Your task to perform on an android device: turn on bluetooth scan Image 0: 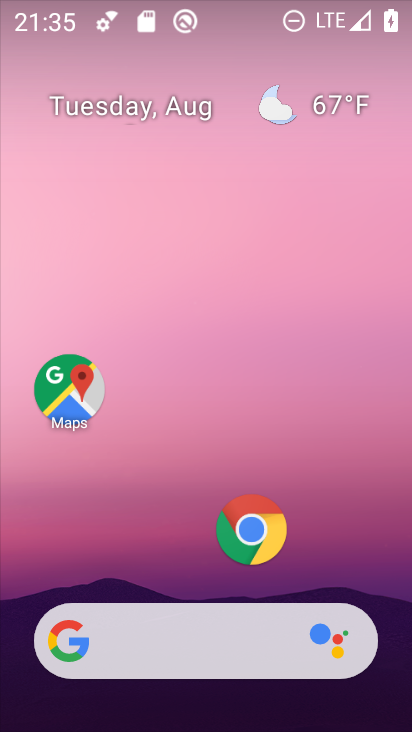
Step 0: drag from (148, 472) to (135, 186)
Your task to perform on an android device: turn on bluetooth scan Image 1: 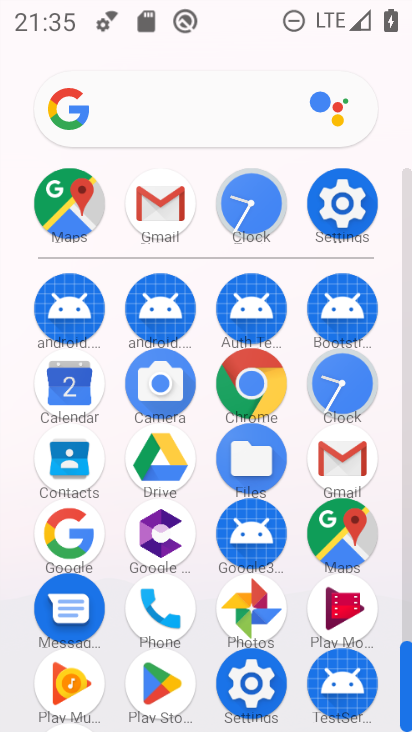
Step 1: click (341, 208)
Your task to perform on an android device: turn on bluetooth scan Image 2: 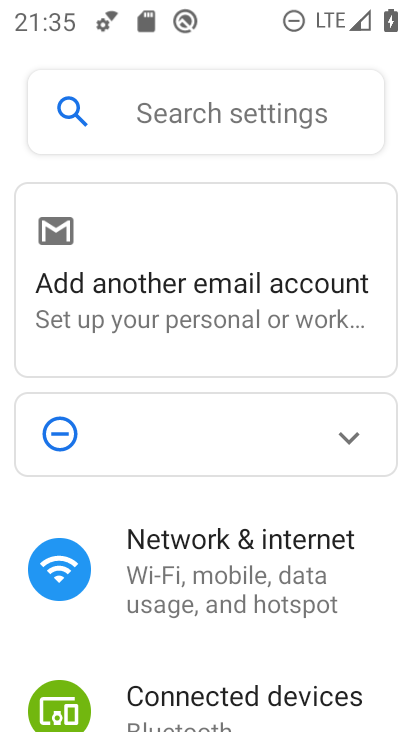
Step 2: drag from (203, 630) to (251, 95)
Your task to perform on an android device: turn on bluetooth scan Image 3: 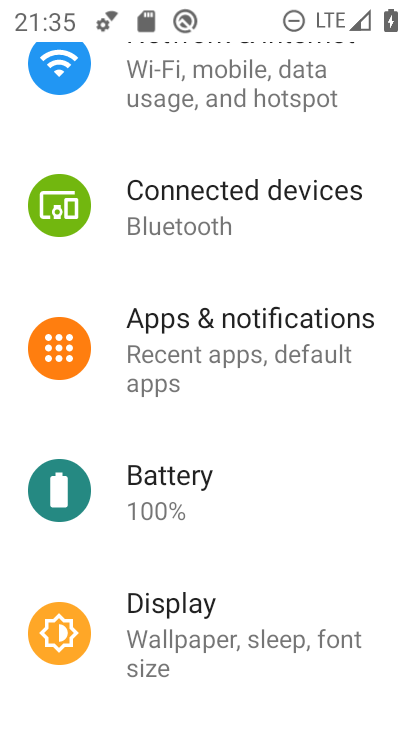
Step 3: drag from (217, 589) to (235, 318)
Your task to perform on an android device: turn on bluetooth scan Image 4: 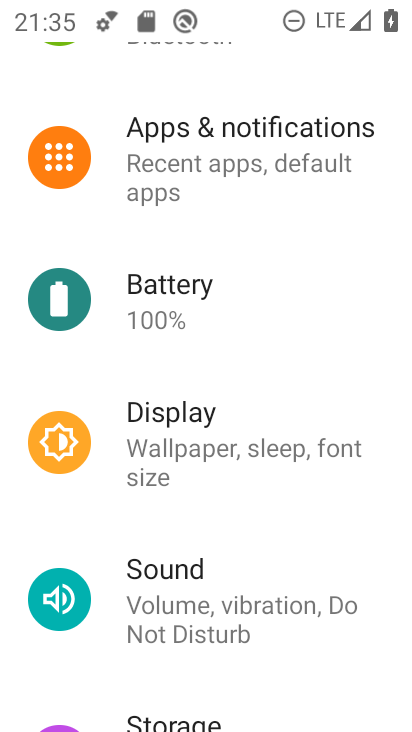
Step 4: drag from (248, 249) to (262, 632)
Your task to perform on an android device: turn on bluetooth scan Image 5: 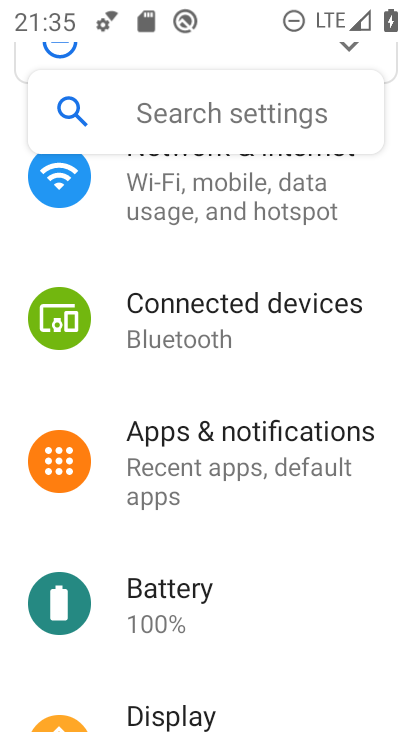
Step 5: drag from (242, 643) to (276, 323)
Your task to perform on an android device: turn on bluetooth scan Image 6: 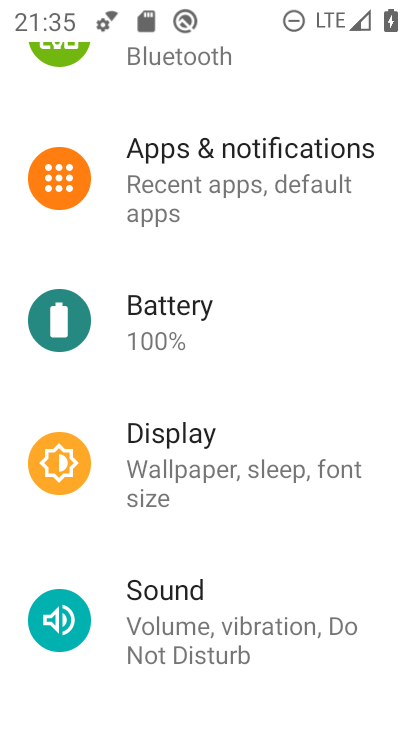
Step 6: drag from (236, 277) to (272, 652)
Your task to perform on an android device: turn on bluetooth scan Image 7: 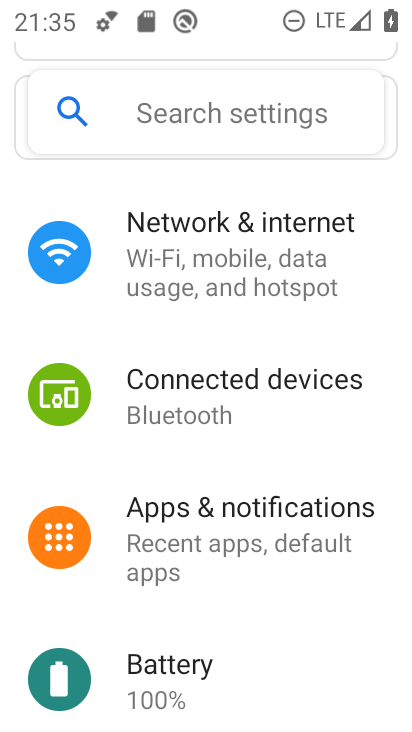
Step 7: drag from (243, 585) to (279, 395)
Your task to perform on an android device: turn on bluetooth scan Image 8: 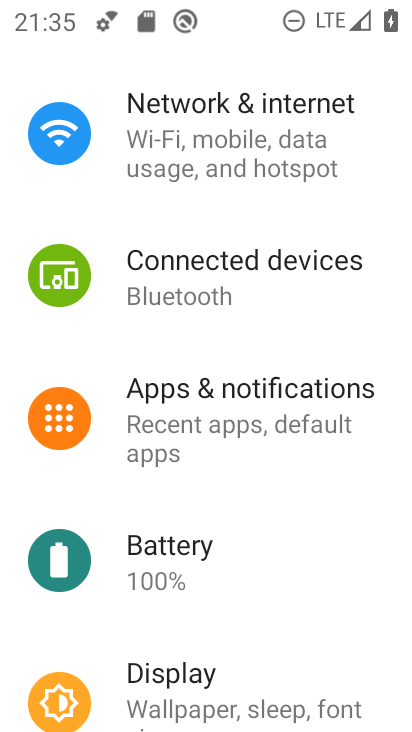
Step 8: drag from (244, 289) to (309, 675)
Your task to perform on an android device: turn on bluetooth scan Image 9: 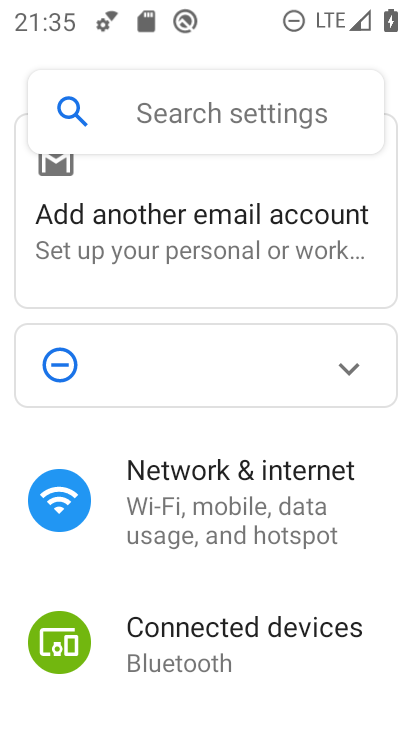
Step 9: drag from (234, 549) to (280, 262)
Your task to perform on an android device: turn on bluetooth scan Image 10: 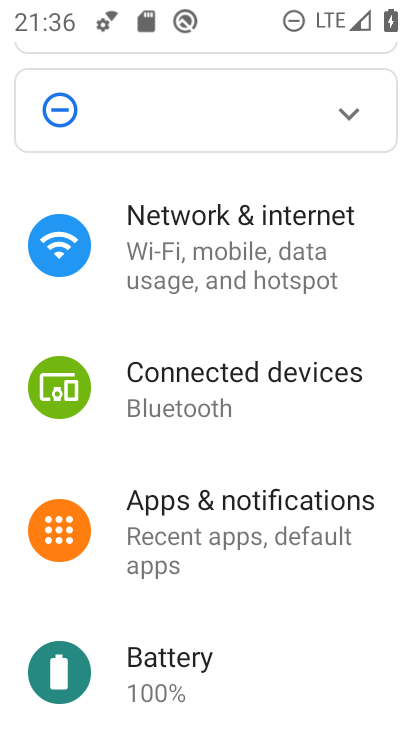
Step 10: drag from (211, 664) to (220, 411)
Your task to perform on an android device: turn on bluetooth scan Image 11: 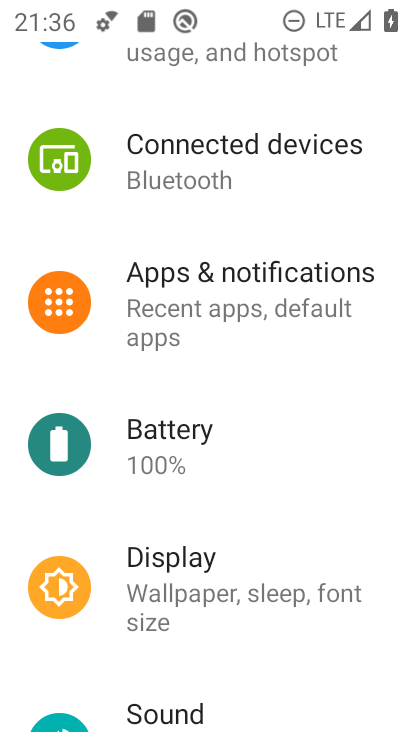
Step 11: drag from (229, 633) to (316, 724)
Your task to perform on an android device: turn on bluetooth scan Image 12: 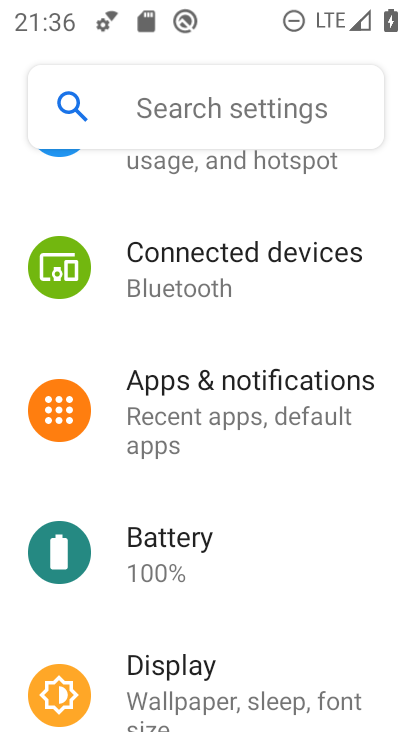
Step 12: drag from (254, 313) to (269, 711)
Your task to perform on an android device: turn on bluetooth scan Image 13: 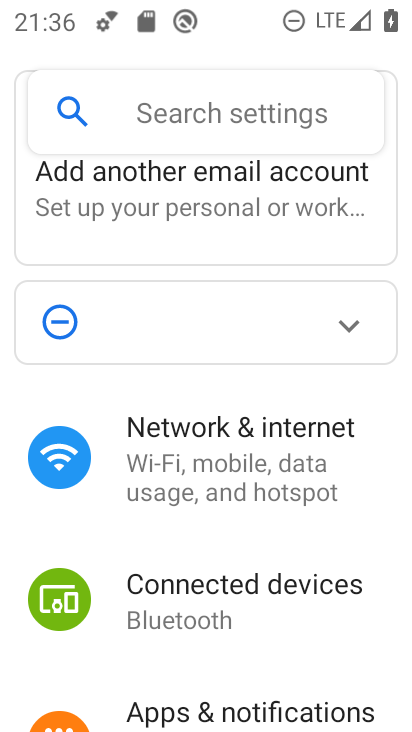
Step 13: drag from (206, 626) to (274, 28)
Your task to perform on an android device: turn on bluetooth scan Image 14: 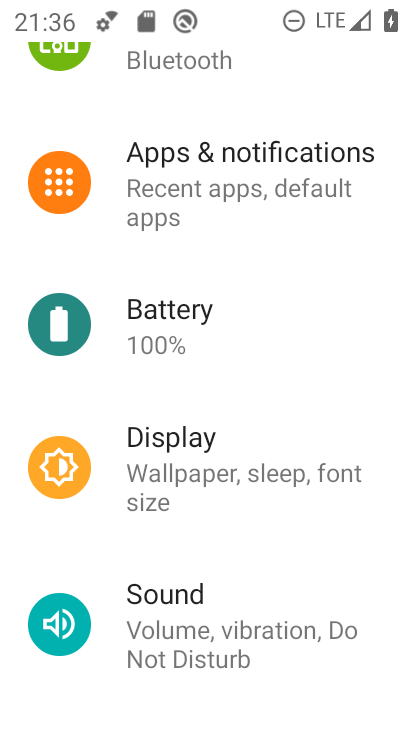
Step 14: drag from (199, 614) to (197, 142)
Your task to perform on an android device: turn on bluetooth scan Image 15: 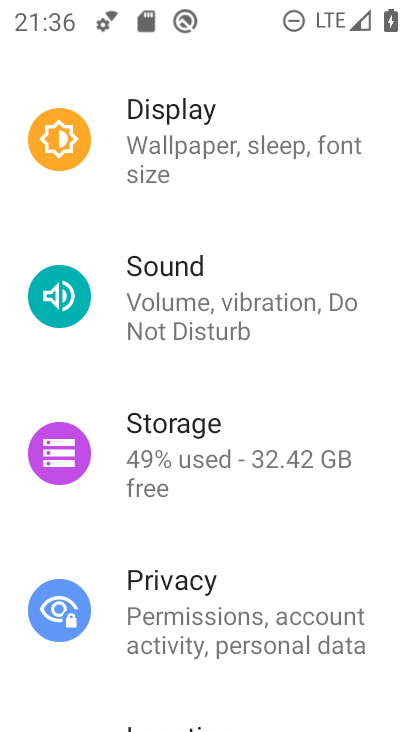
Step 15: drag from (189, 651) to (232, 109)
Your task to perform on an android device: turn on bluetooth scan Image 16: 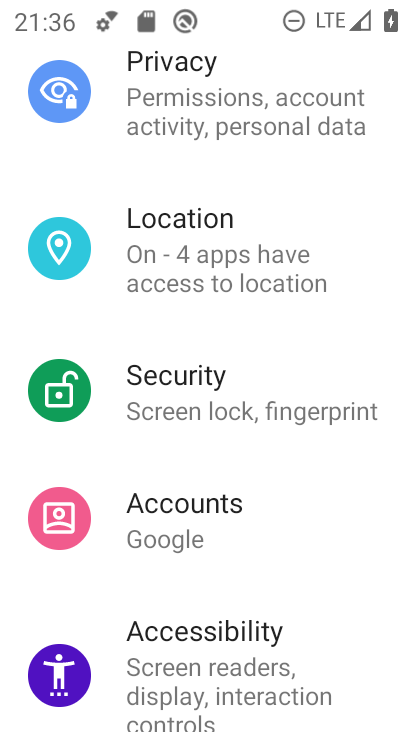
Step 16: click (170, 240)
Your task to perform on an android device: turn on bluetooth scan Image 17: 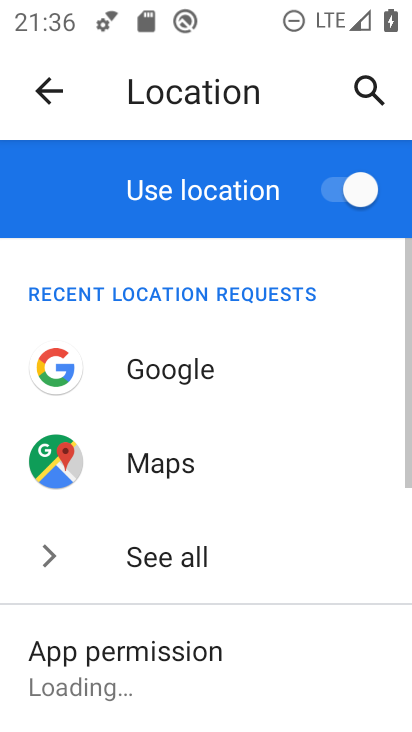
Step 17: drag from (212, 578) to (246, 265)
Your task to perform on an android device: turn on bluetooth scan Image 18: 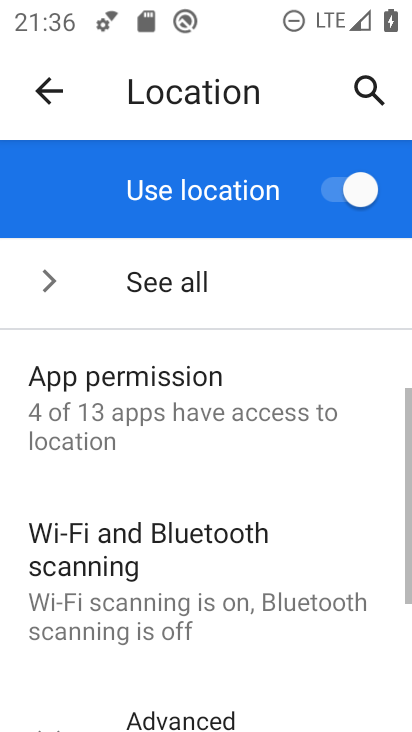
Step 18: click (154, 550)
Your task to perform on an android device: turn on bluetooth scan Image 19: 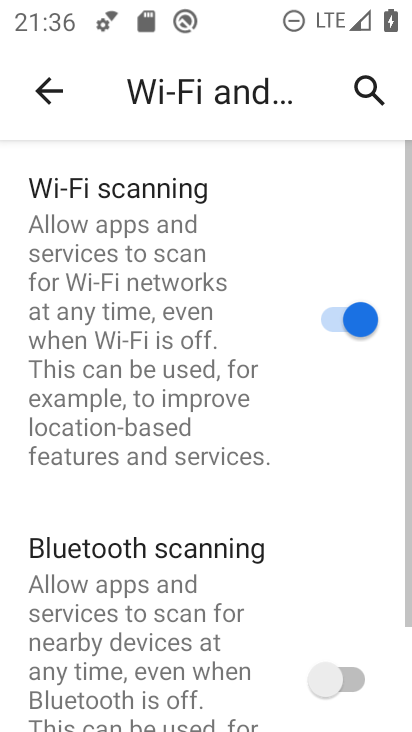
Step 19: click (273, 645)
Your task to perform on an android device: turn on bluetooth scan Image 20: 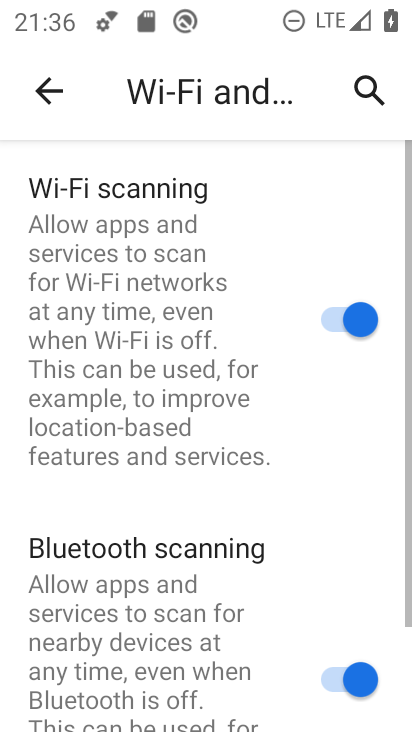
Step 20: task complete